Your task to perform on an android device: open sync settings in chrome Image 0: 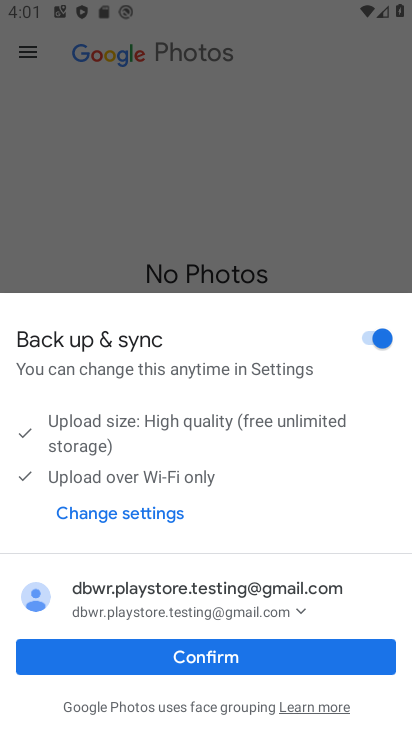
Step 0: click (205, 656)
Your task to perform on an android device: open sync settings in chrome Image 1: 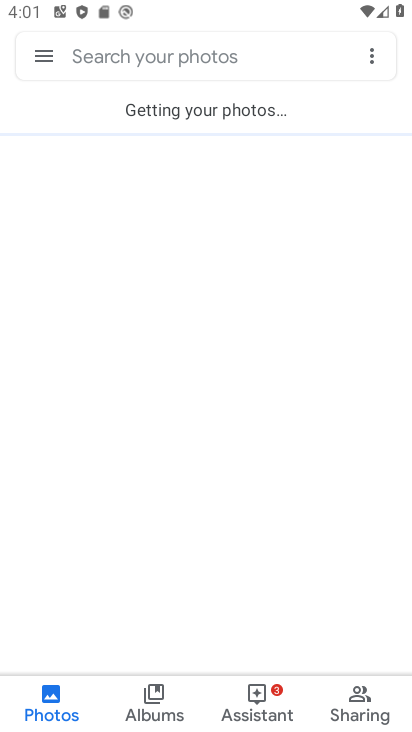
Step 1: press home button
Your task to perform on an android device: open sync settings in chrome Image 2: 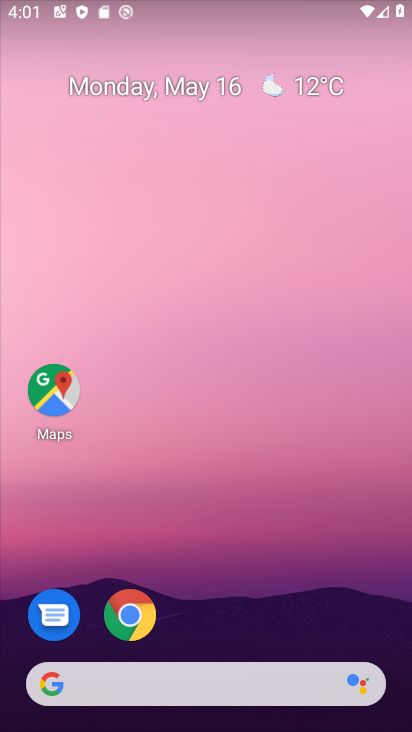
Step 2: click (134, 614)
Your task to perform on an android device: open sync settings in chrome Image 3: 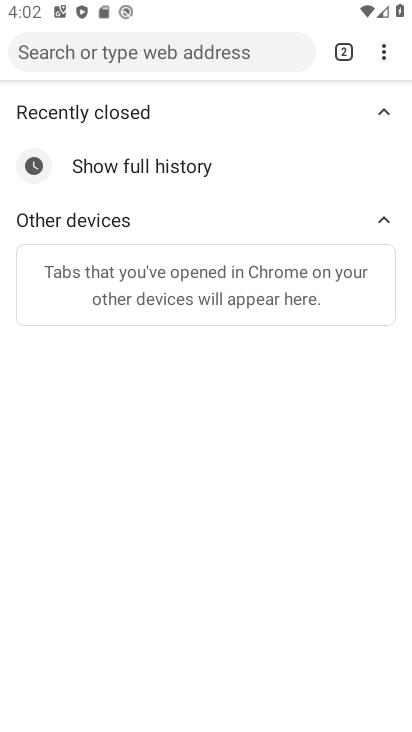
Step 3: click (386, 57)
Your task to perform on an android device: open sync settings in chrome Image 4: 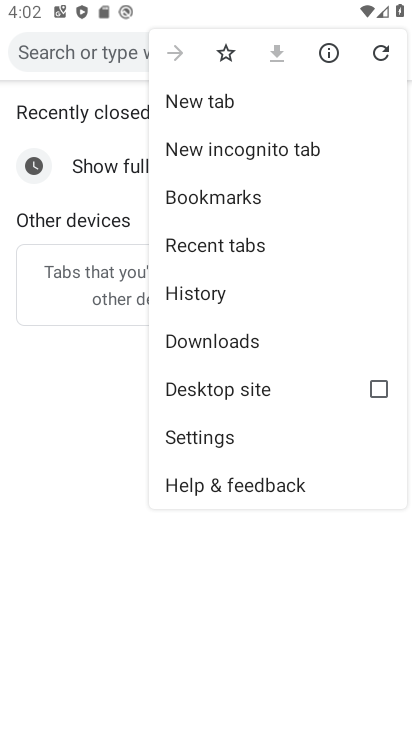
Step 4: click (204, 431)
Your task to perform on an android device: open sync settings in chrome Image 5: 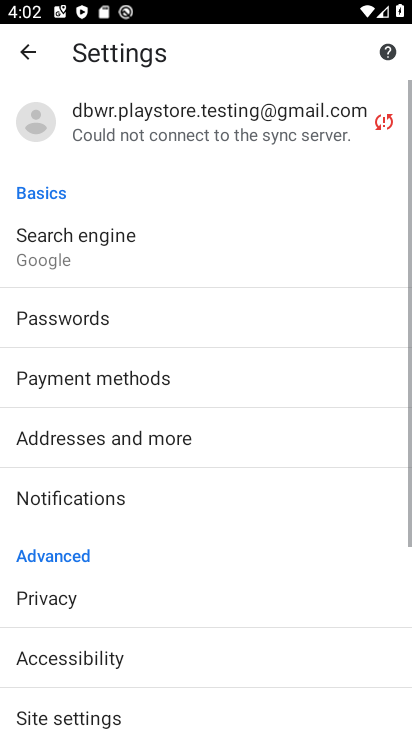
Step 5: drag from (114, 623) to (95, 253)
Your task to perform on an android device: open sync settings in chrome Image 6: 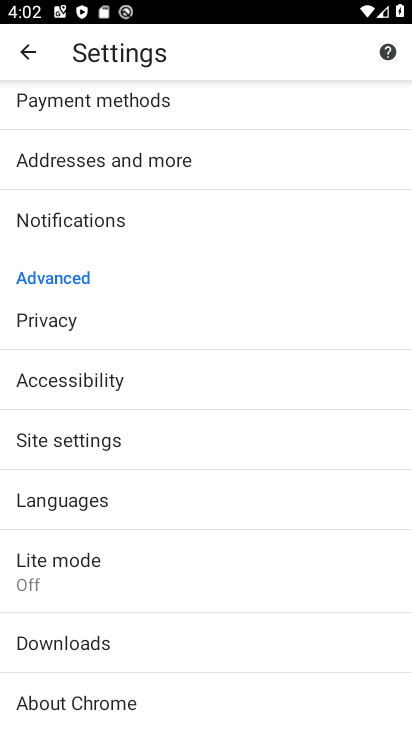
Step 6: click (66, 441)
Your task to perform on an android device: open sync settings in chrome Image 7: 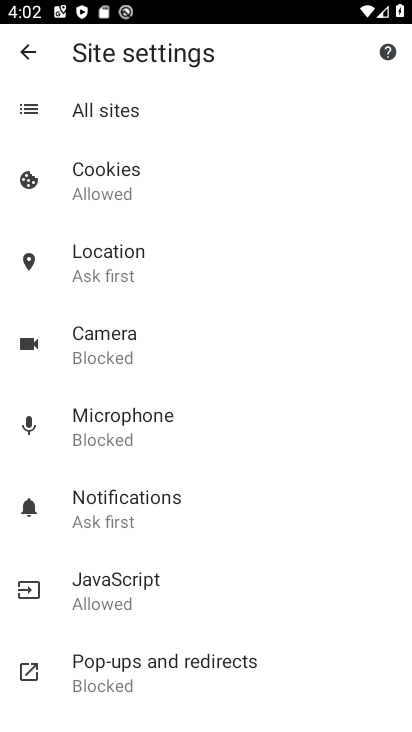
Step 7: drag from (136, 636) to (145, 365)
Your task to perform on an android device: open sync settings in chrome Image 8: 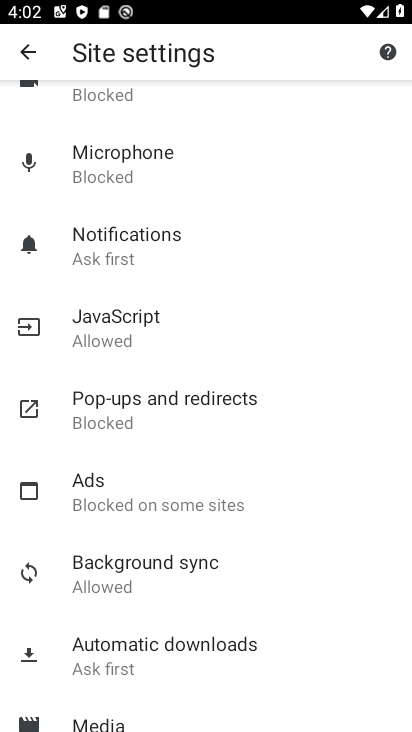
Step 8: click (143, 571)
Your task to perform on an android device: open sync settings in chrome Image 9: 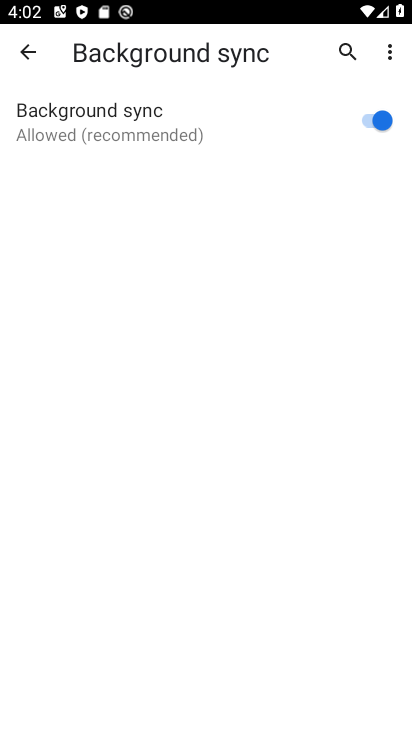
Step 9: task complete